Your task to perform on an android device: Open Google Maps and go to "Timeline" Image 0: 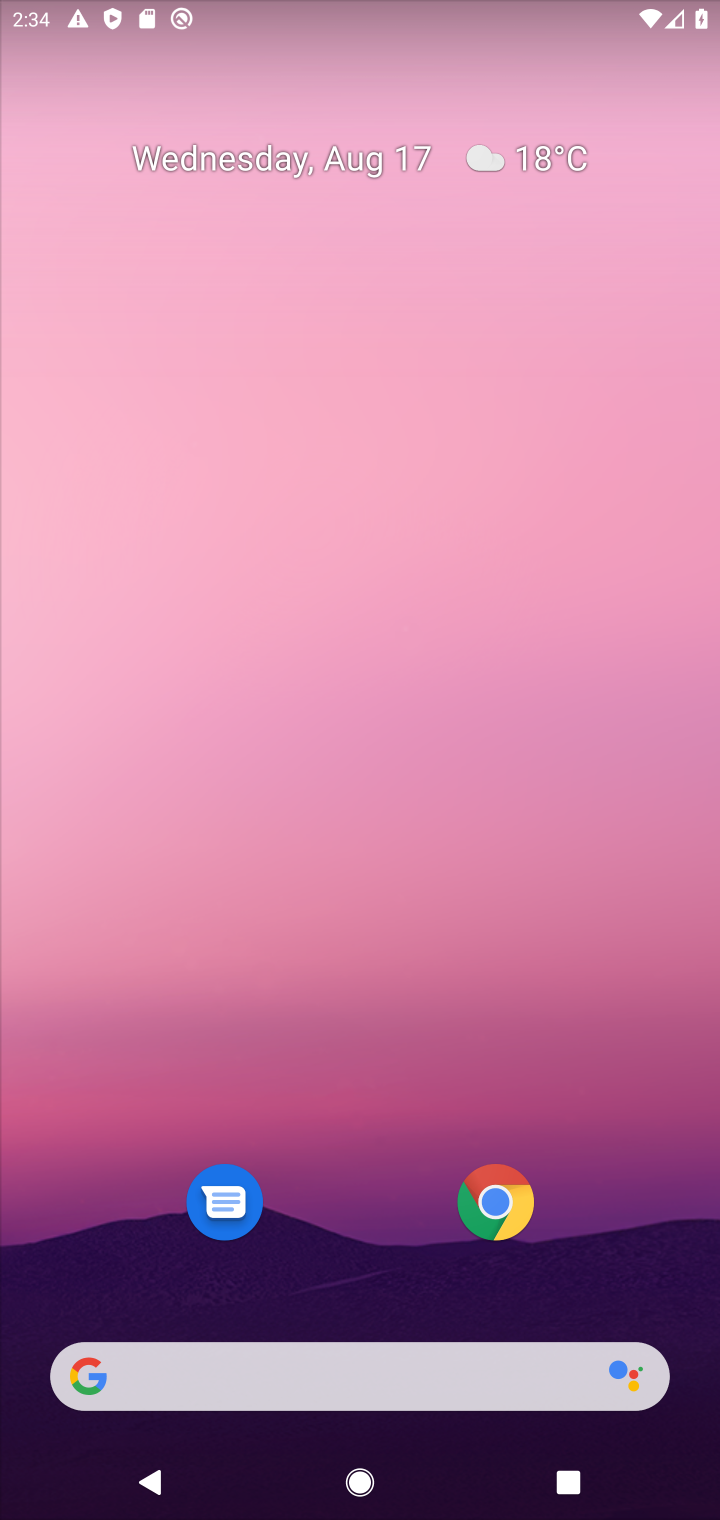
Step 0: drag from (336, 780) to (433, 97)
Your task to perform on an android device: Open Google Maps and go to "Timeline" Image 1: 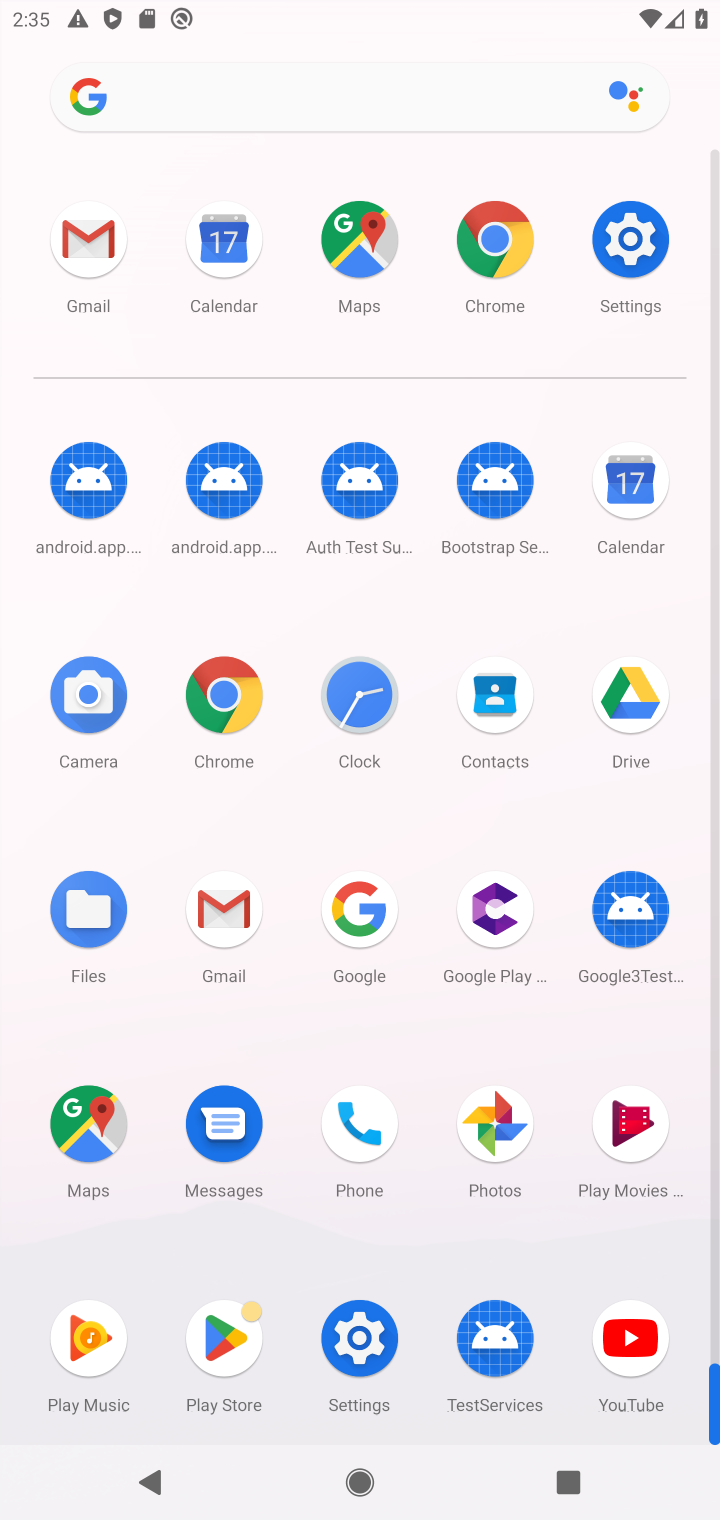
Step 1: click (100, 1139)
Your task to perform on an android device: Open Google Maps and go to "Timeline" Image 2: 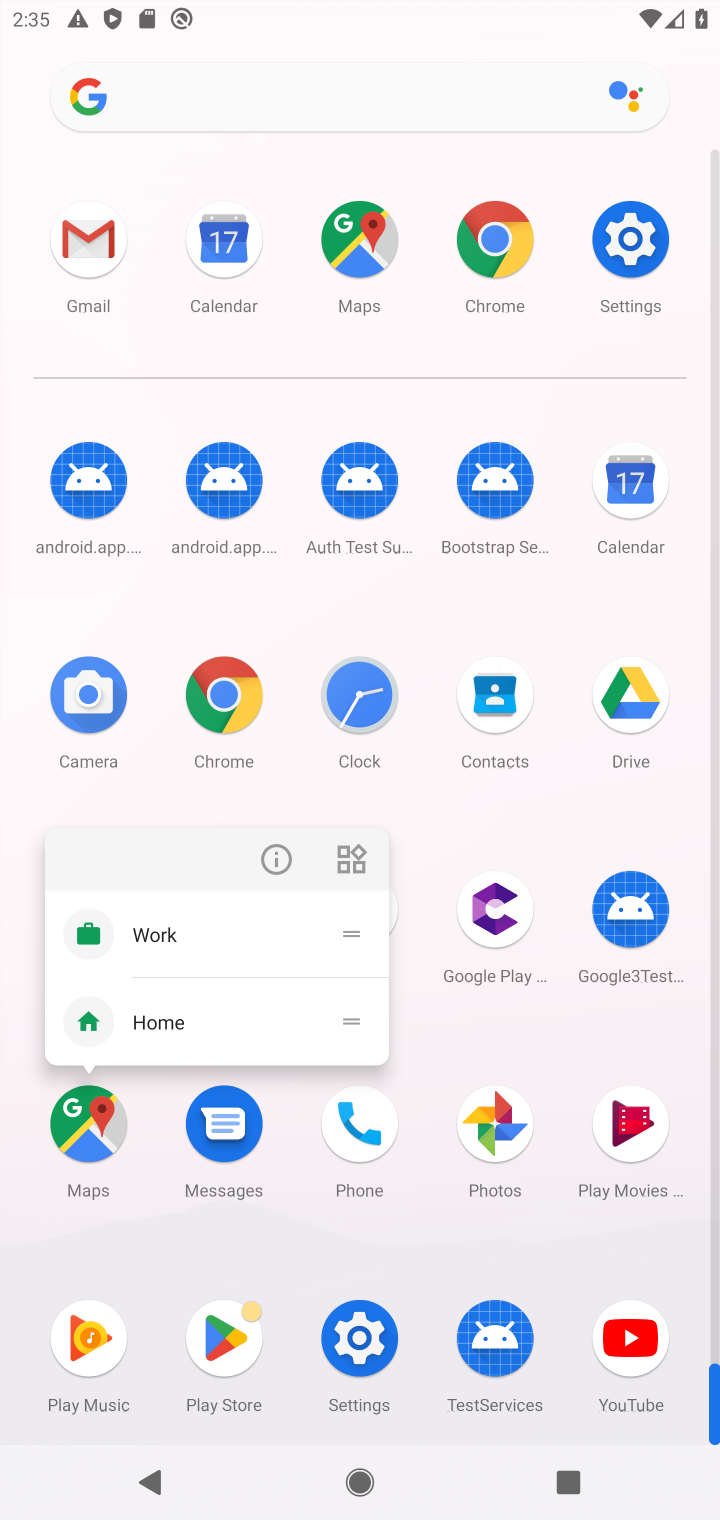
Step 2: click (98, 1139)
Your task to perform on an android device: Open Google Maps and go to "Timeline" Image 3: 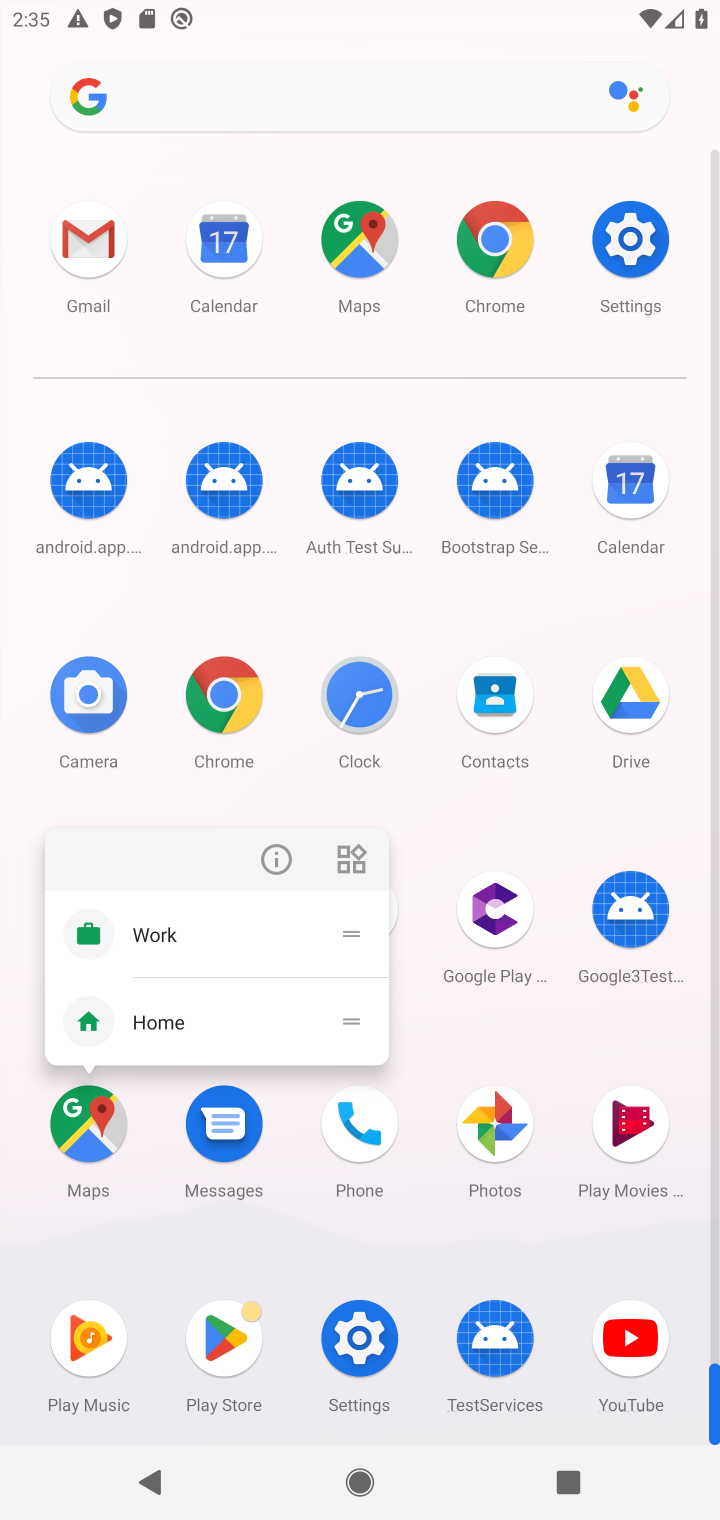
Step 3: click (98, 1139)
Your task to perform on an android device: Open Google Maps and go to "Timeline" Image 4: 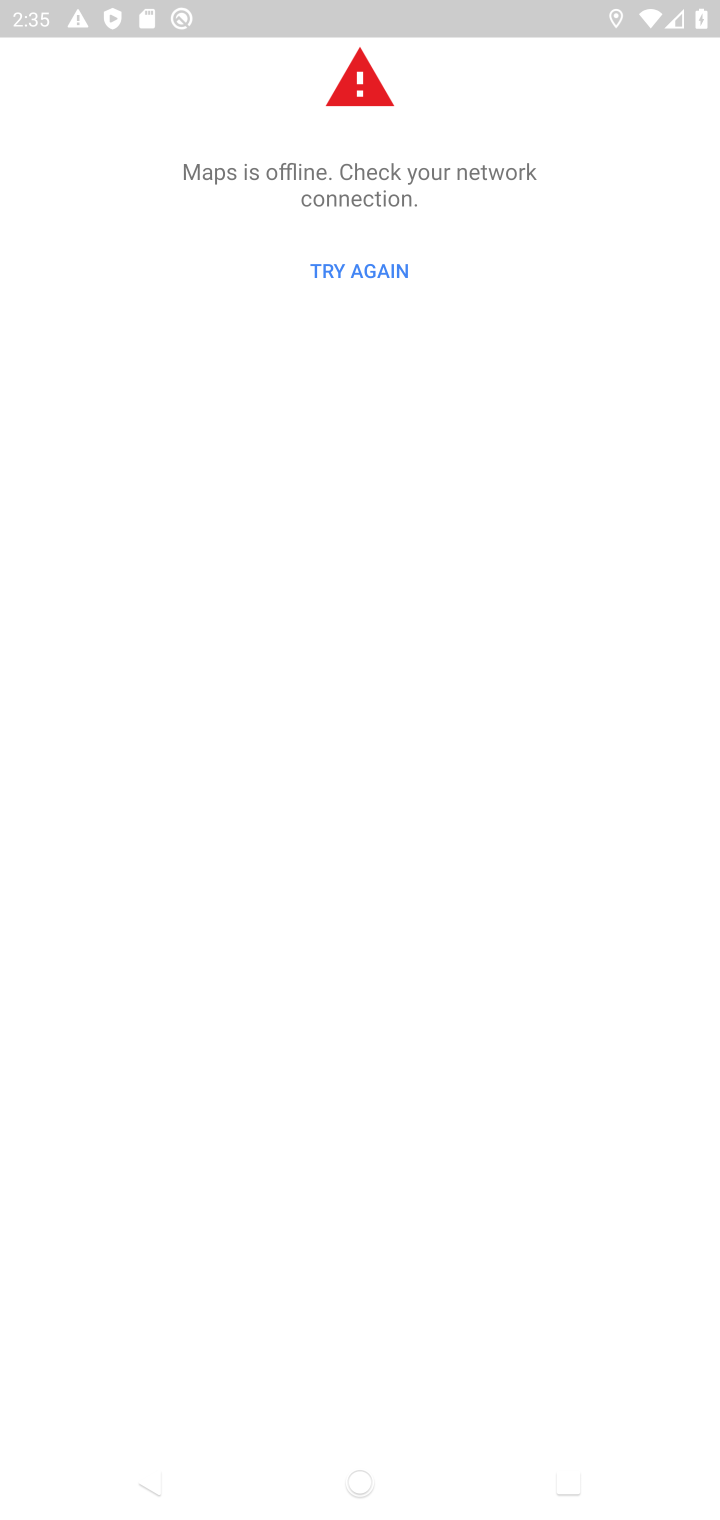
Step 4: click (331, 247)
Your task to perform on an android device: Open Google Maps and go to "Timeline" Image 5: 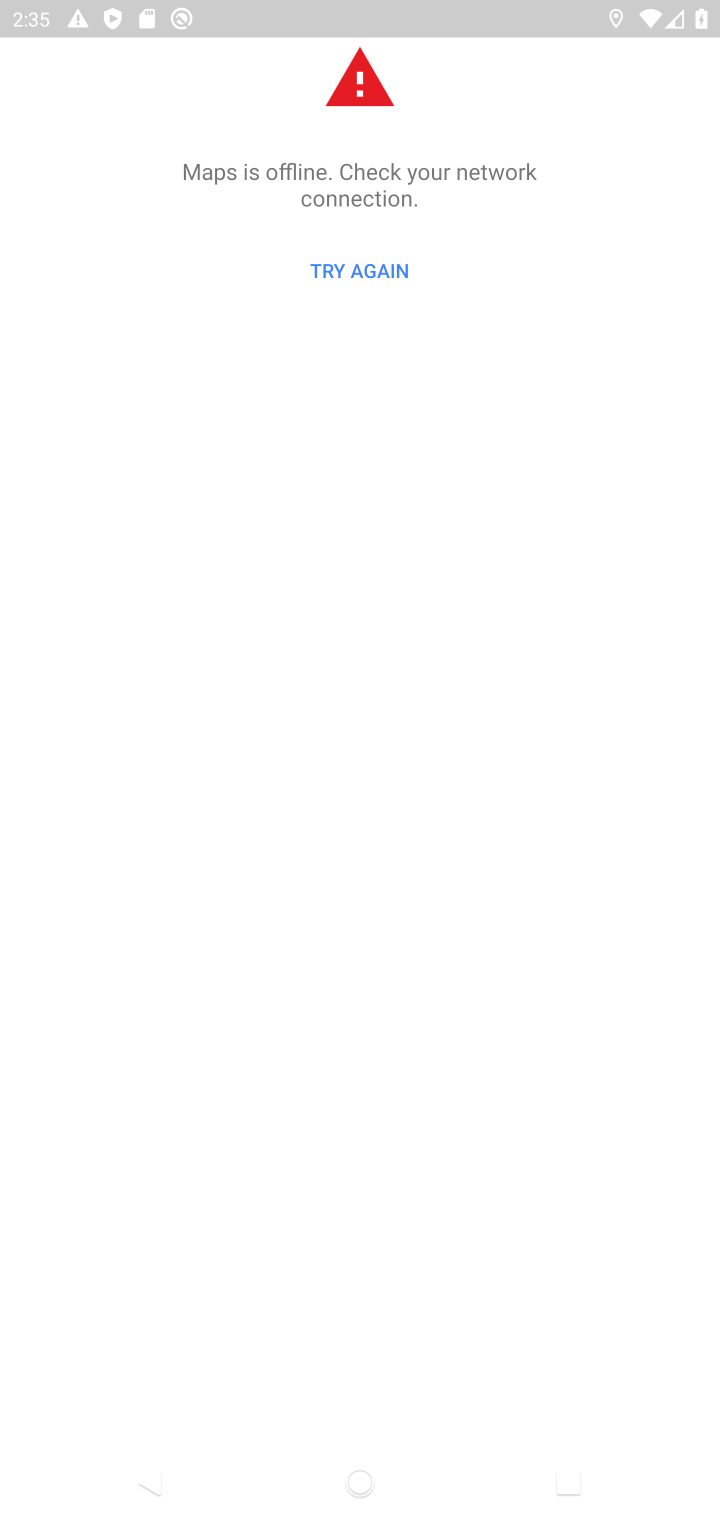
Step 5: task complete